Your task to perform on an android device: open app "Truecaller" Image 0: 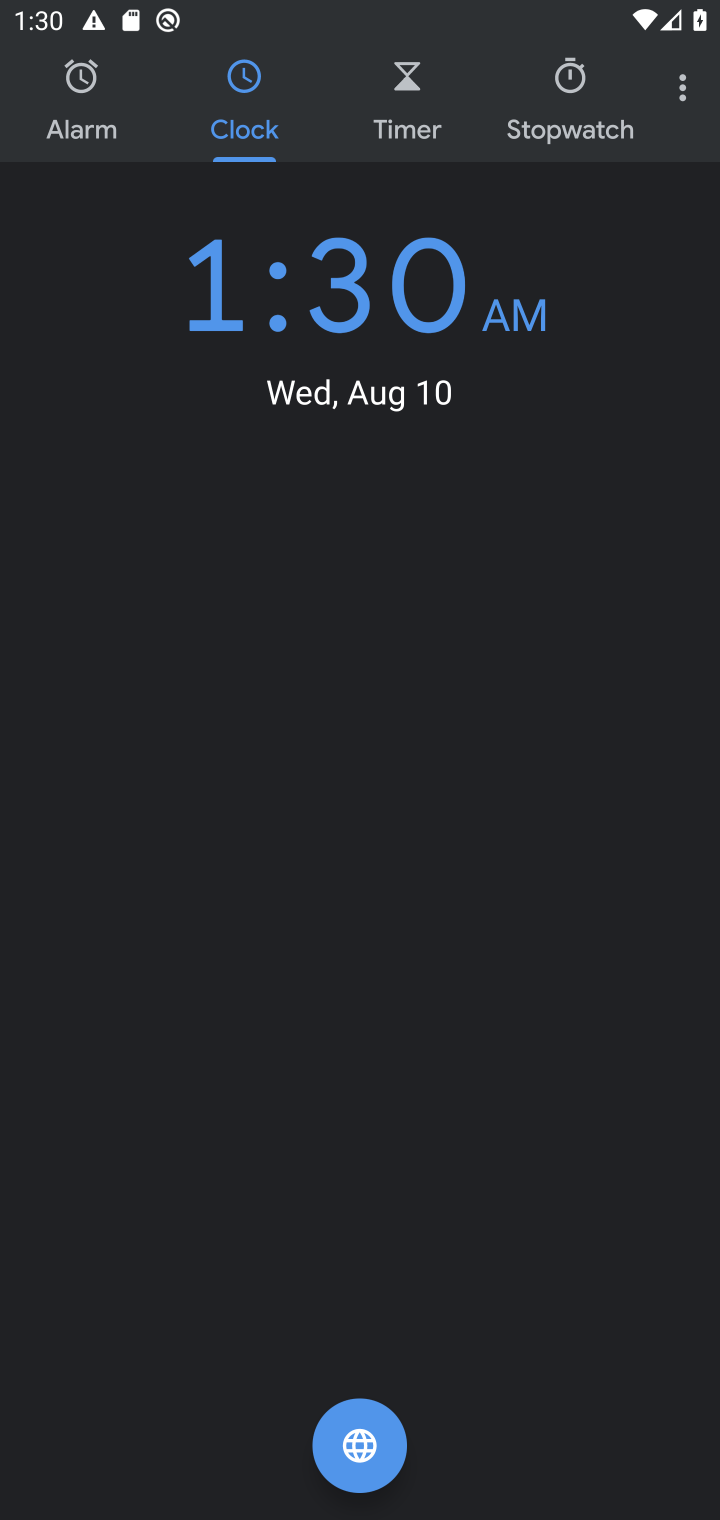
Step 0: press home button
Your task to perform on an android device: open app "Truecaller" Image 1: 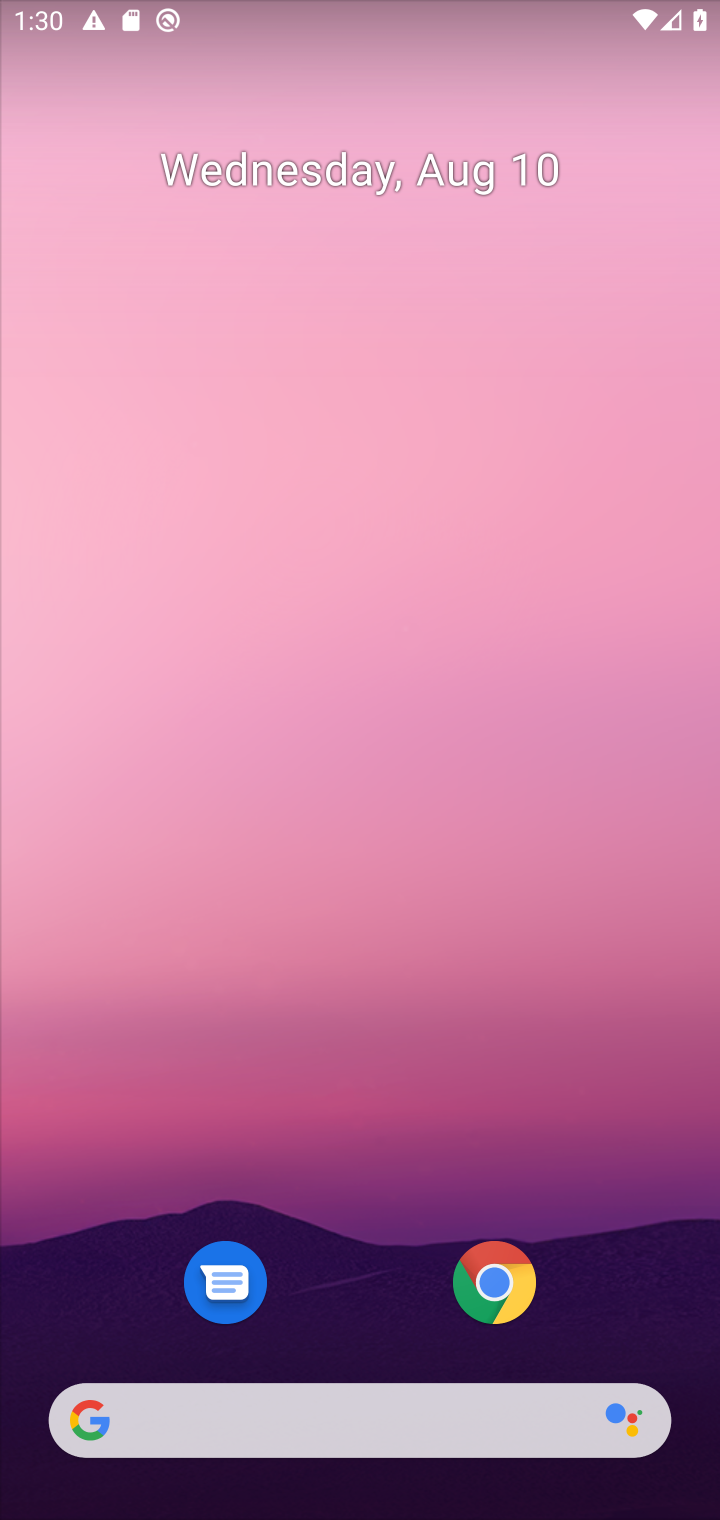
Step 1: drag from (425, 1336) to (414, 226)
Your task to perform on an android device: open app "Truecaller" Image 2: 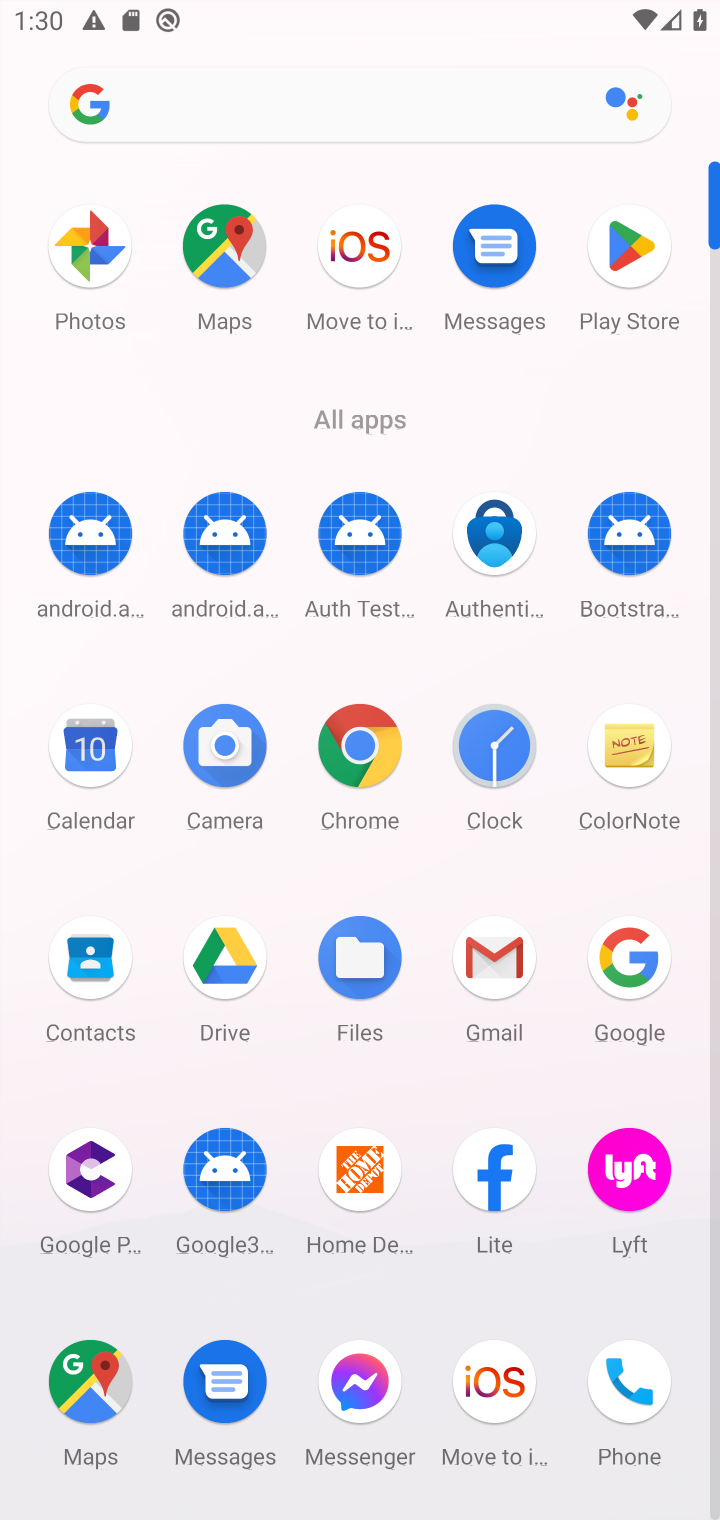
Step 2: click (629, 1403)
Your task to perform on an android device: open app "Truecaller" Image 3: 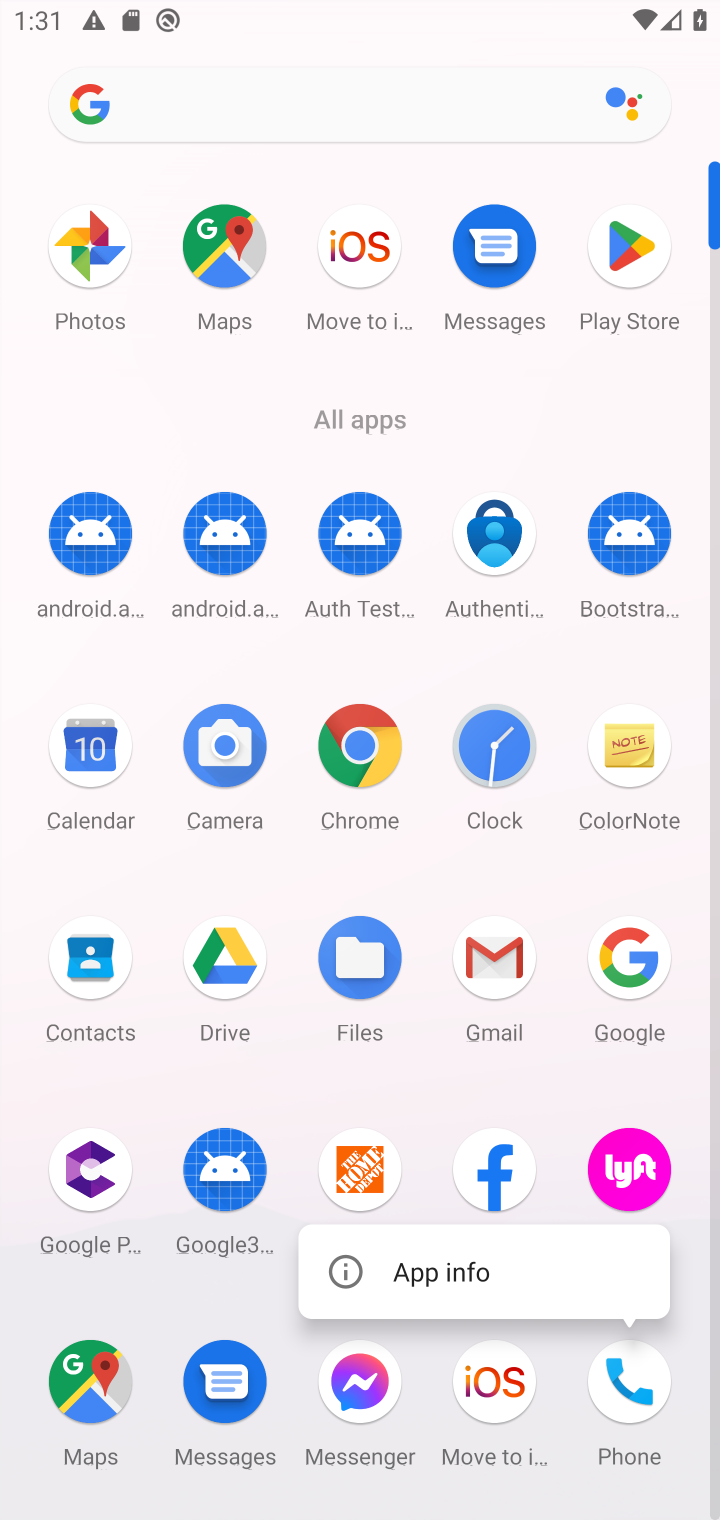
Step 3: click (442, 860)
Your task to perform on an android device: open app "Truecaller" Image 4: 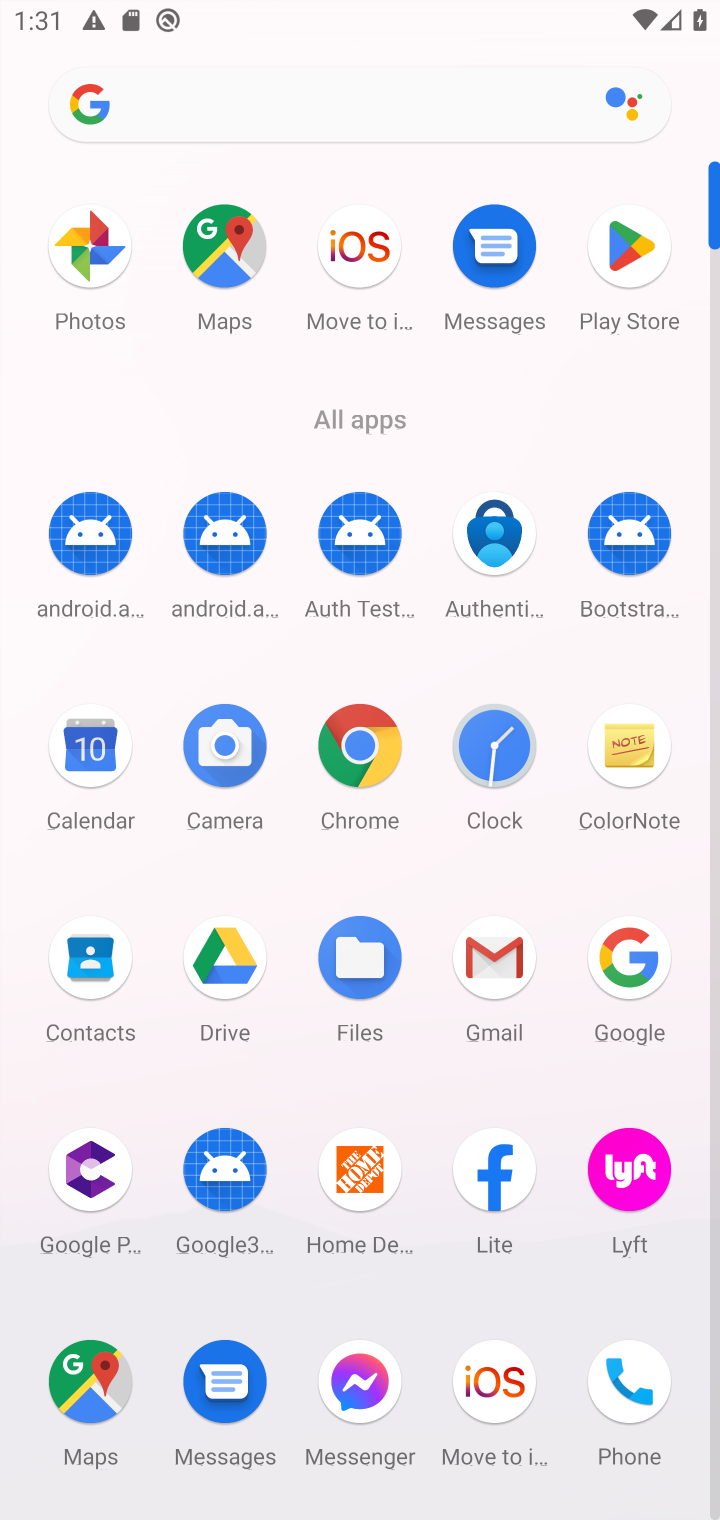
Step 4: click (625, 265)
Your task to perform on an android device: open app "Truecaller" Image 5: 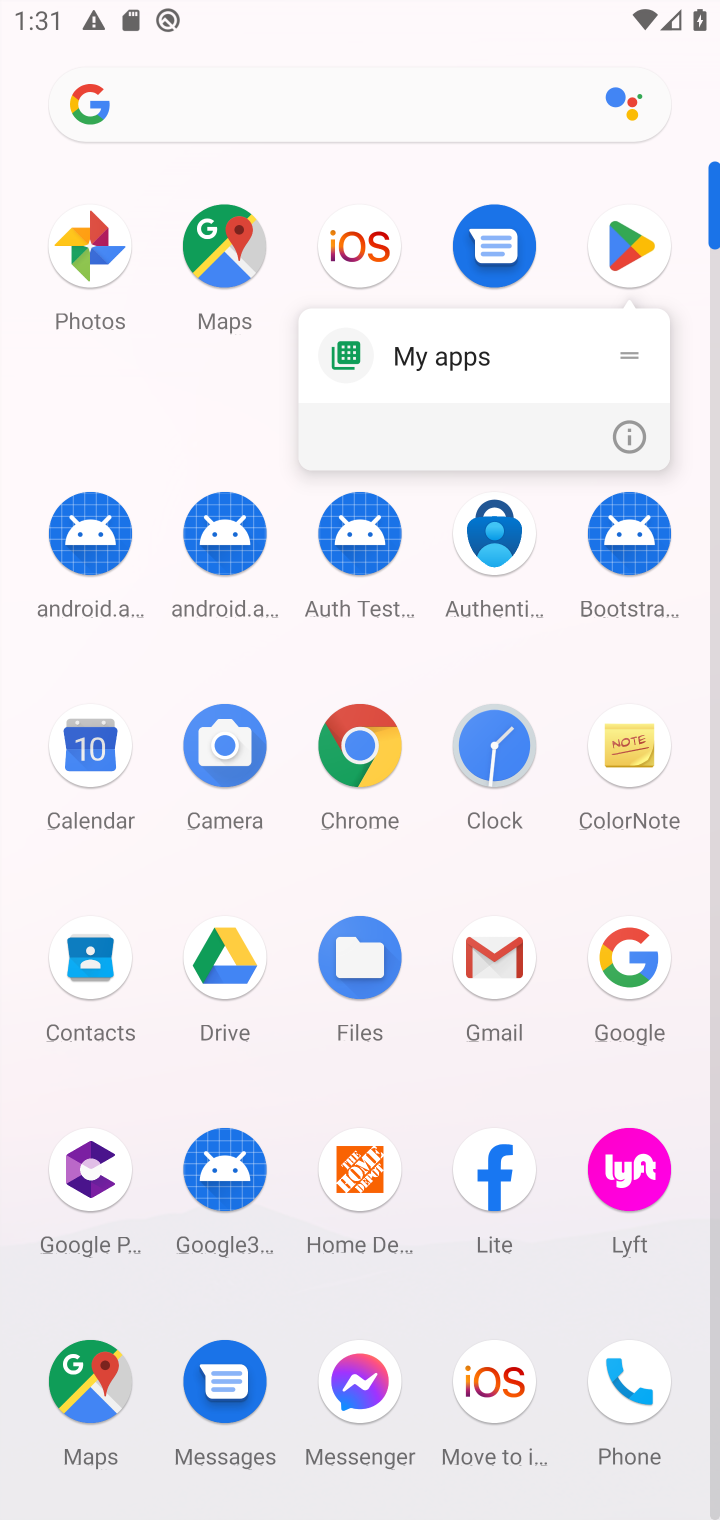
Step 5: click (634, 231)
Your task to perform on an android device: open app "Truecaller" Image 6: 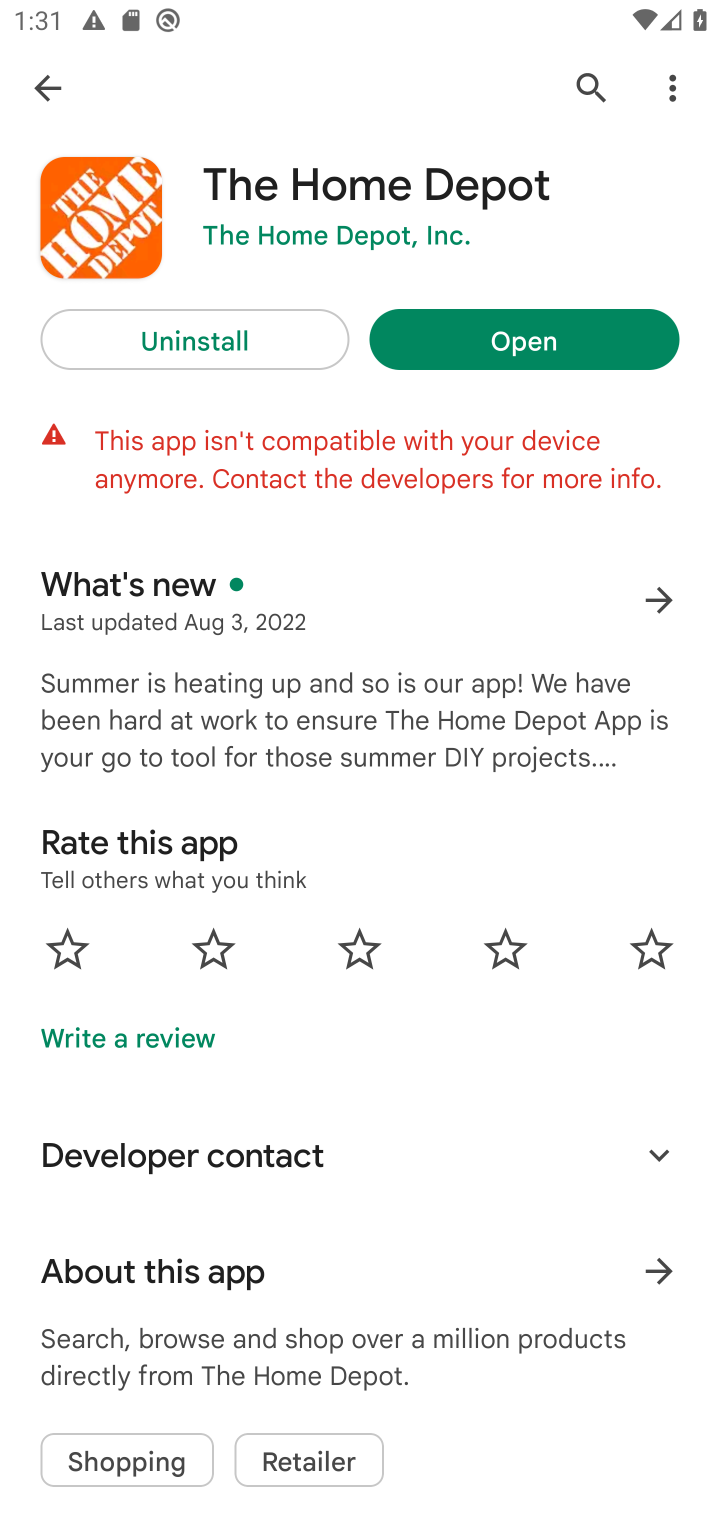
Step 6: click (61, 91)
Your task to perform on an android device: open app "Truecaller" Image 7: 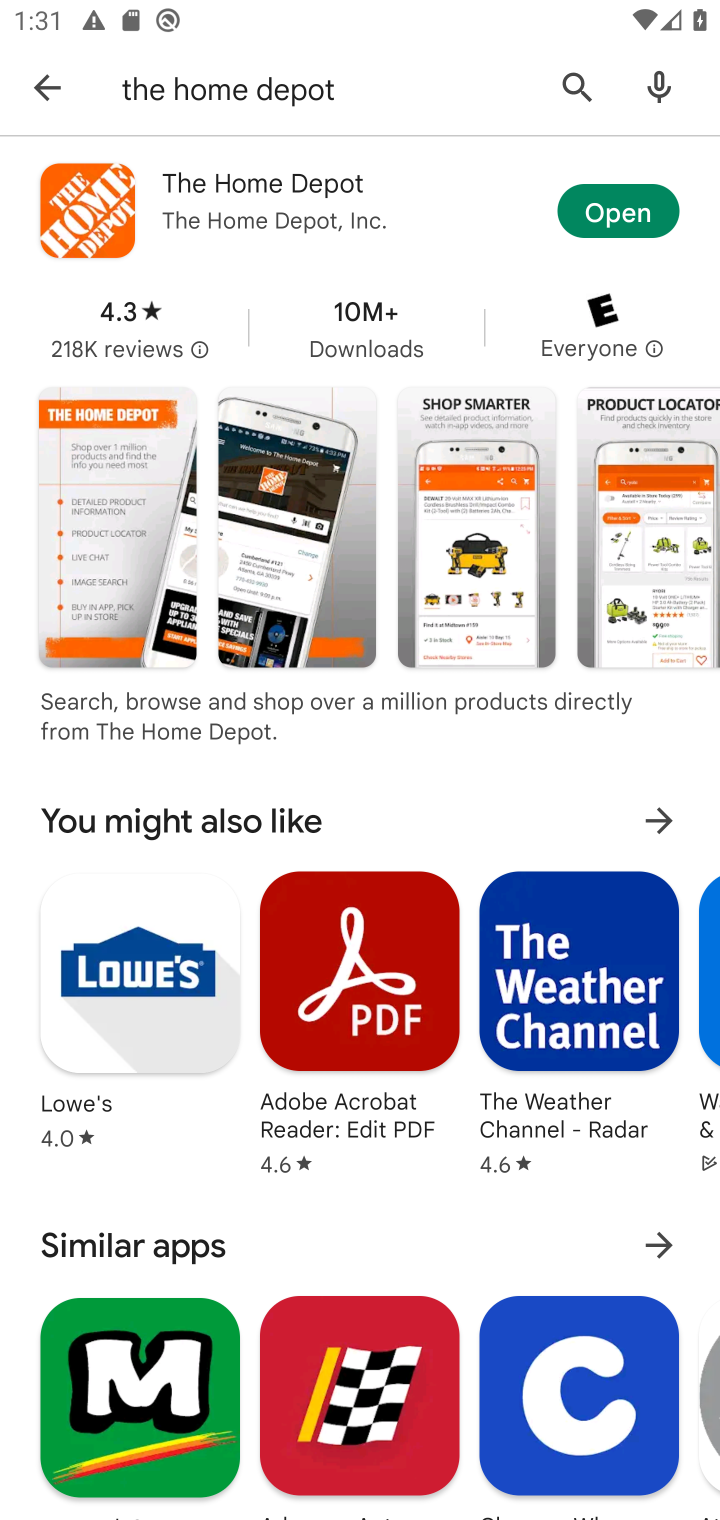
Step 7: click (568, 85)
Your task to perform on an android device: open app "Truecaller" Image 8: 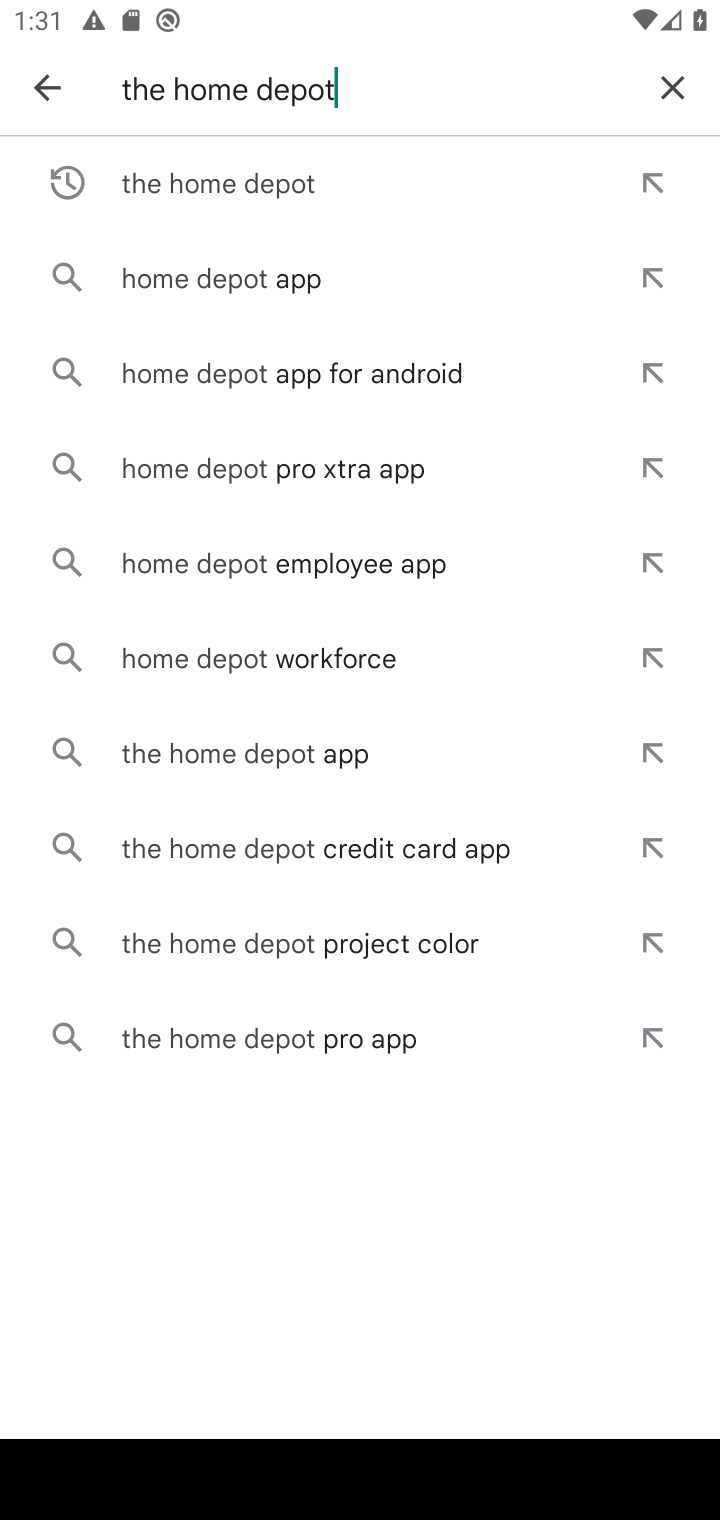
Step 8: click (660, 68)
Your task to perform on an android device: open app "Truecaller" Image 9: 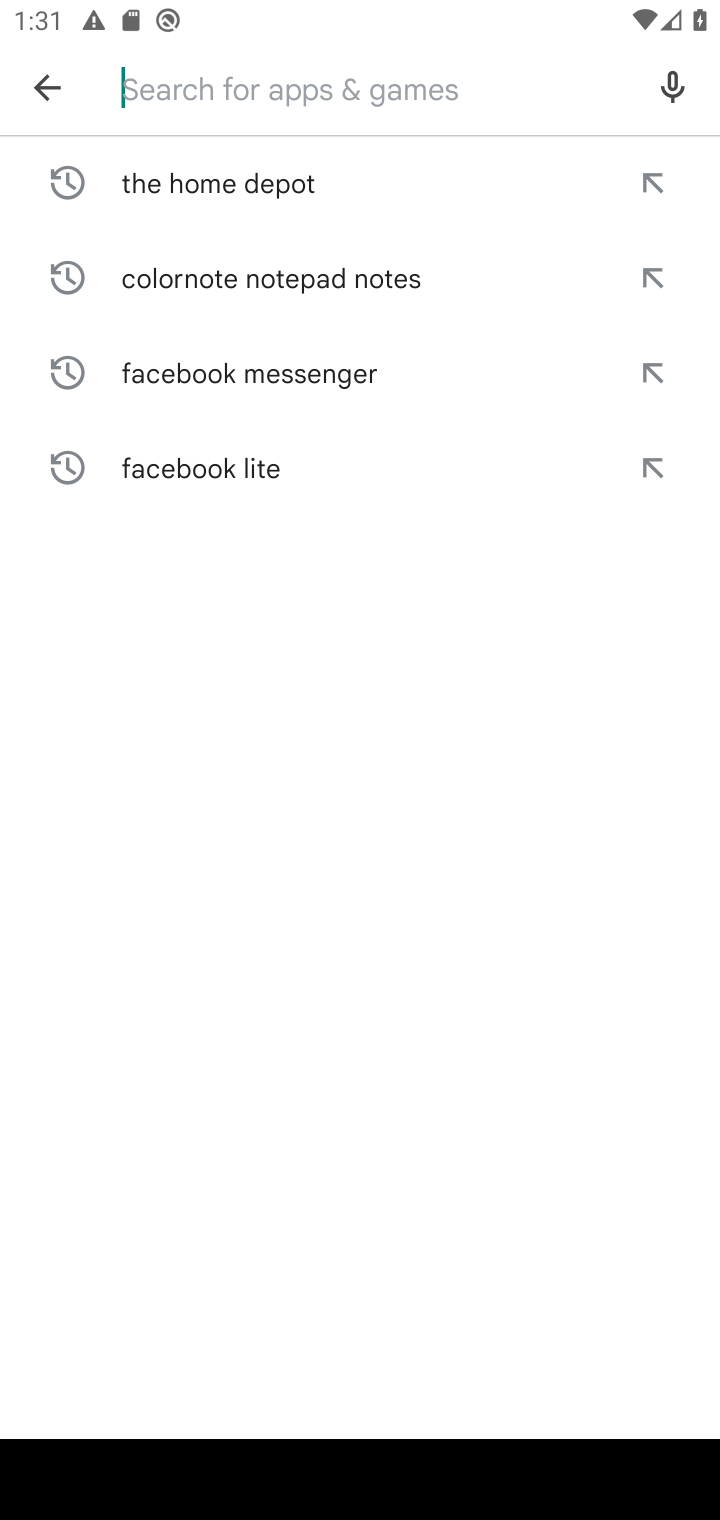
Step 9: type "Truecaller"
Your task to perform on an android device: open app "Truecaller" Image 10: 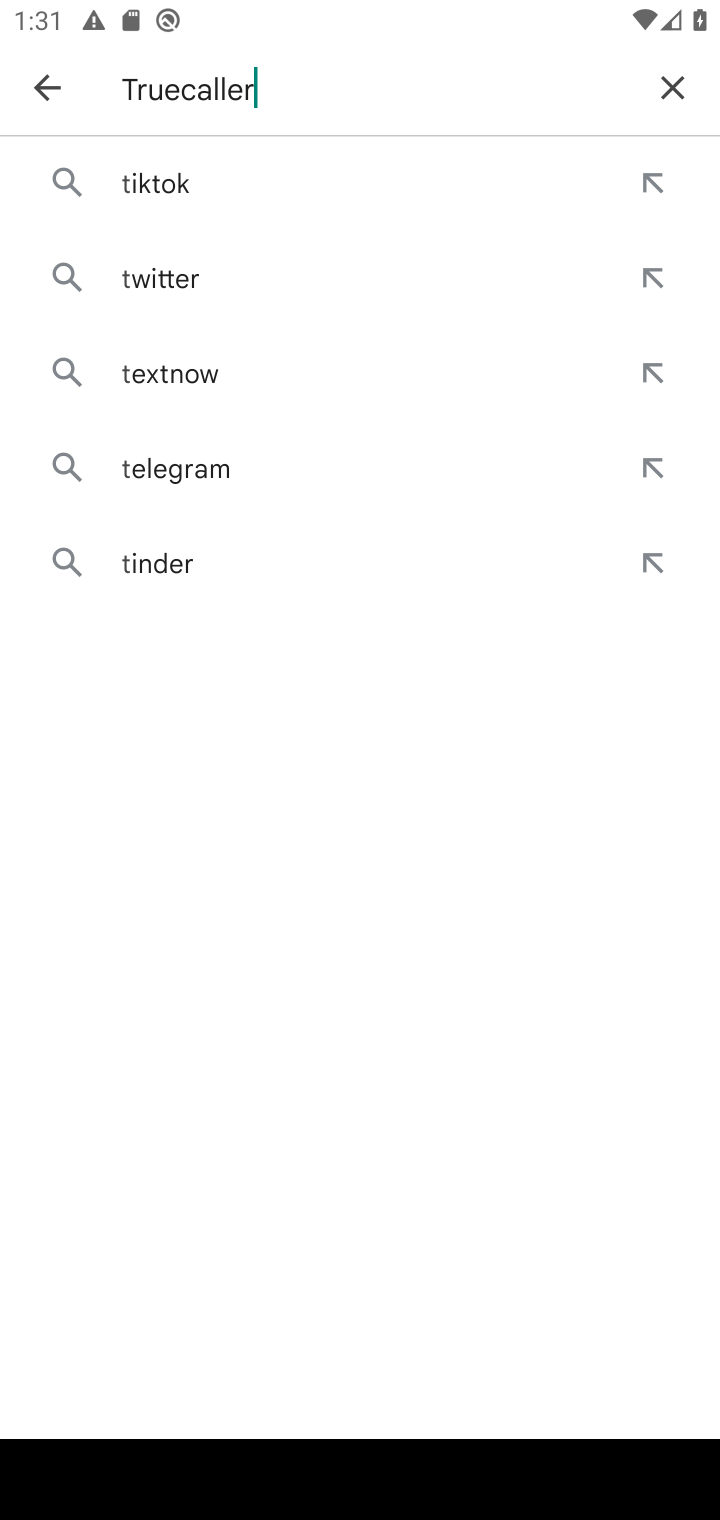
Step 10: type ""
Your task to perform on an android device: open app "Truecaller" Image 11: 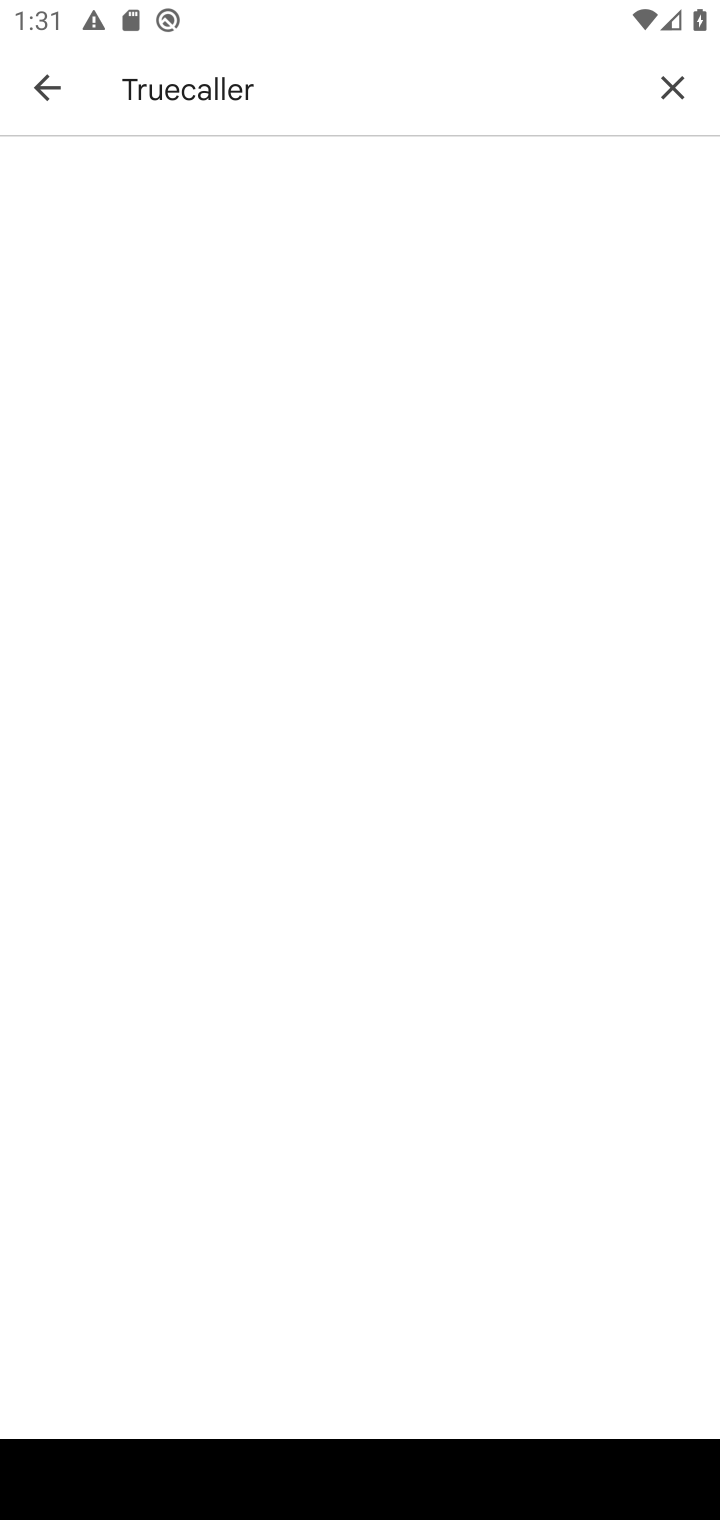
Step 11: task complete